Your task to perform on an android device: Do I have any events tomorrow? Image 0: 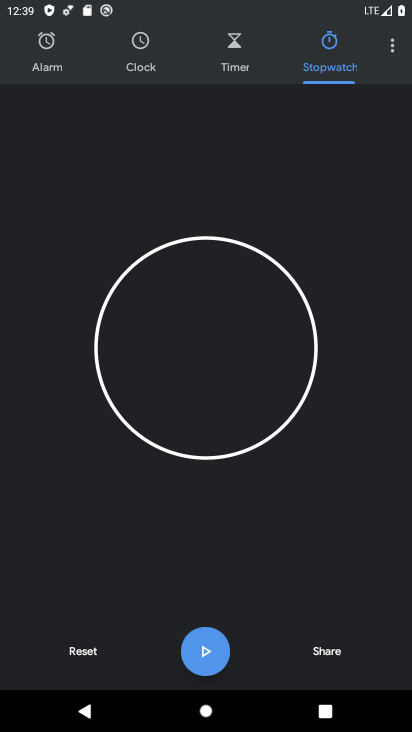
Step 0: press home button
Your task to perform on an android device: Do I have any events tomorrow? Image 1: 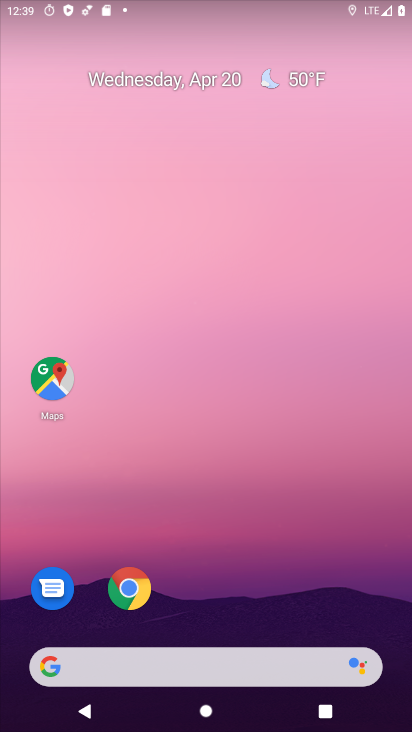
Step 1: drag from (219, 633) to (214, 108)
Your task to perform on an android device: Do I have any events tomorrow? Image 2: 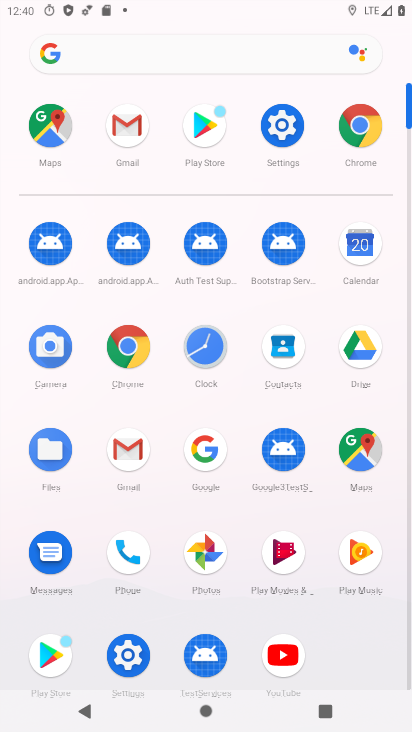
Step 2: click (368, 245)
Your task to perform on an android device: Do I have any events tomorrow? Image 3: 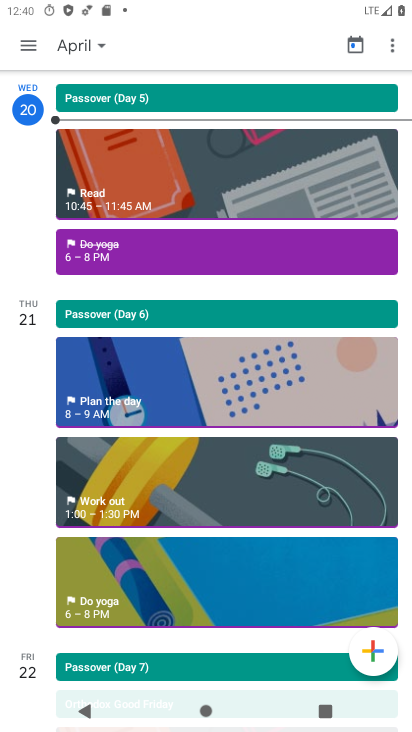
Step 3: click (33, 46)
Your task to perform on an android device: Do I have any events tomorrow? Image 4: 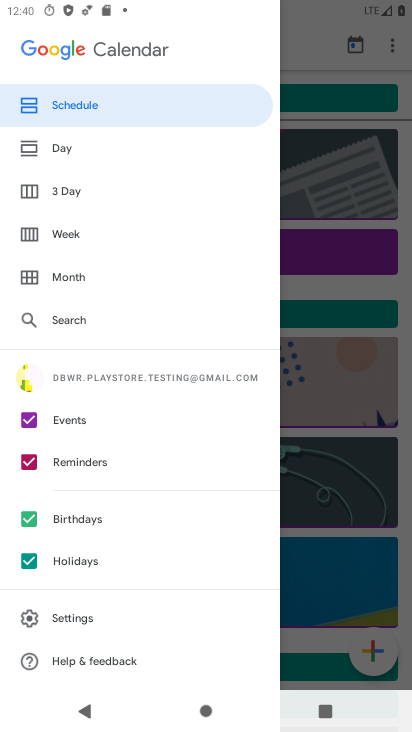
Step 4: click (68, 232)
Your task to perform on an android device: Do I have any events tomorrow? Image 5: 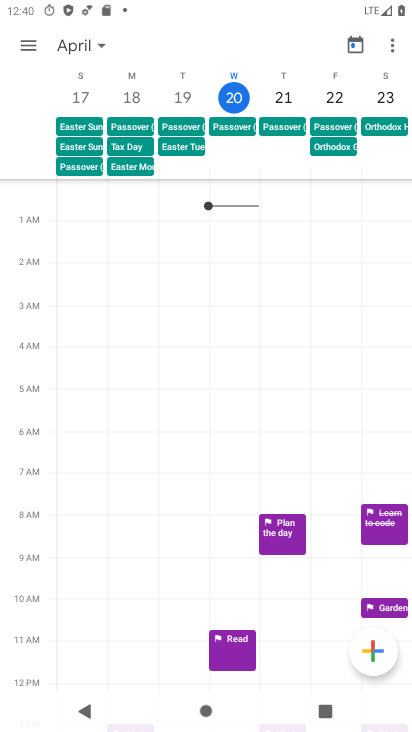
Step 5: click (272, 89)
Your task to perform on an android device: Do I have any events tomorrow? Image 6: 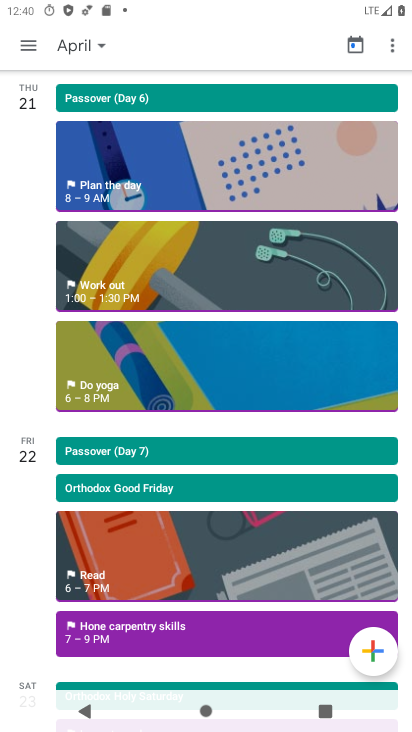
Step 6: task complete